Your task to perform on an android device: check battery use Image 0: 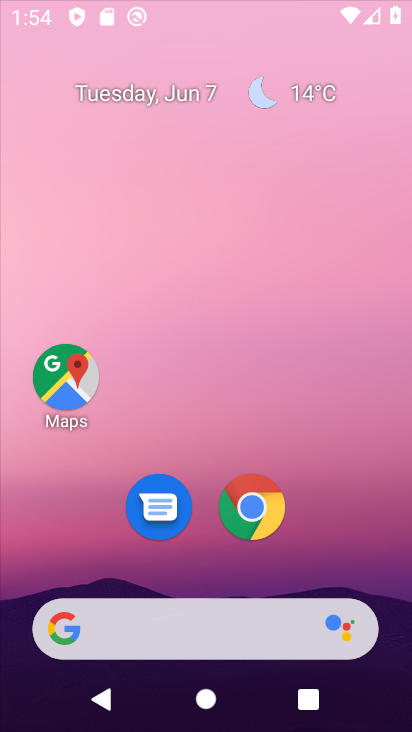
Step 0: click (256, 504)
Your task to perform on an android device: check battery use Image 1: 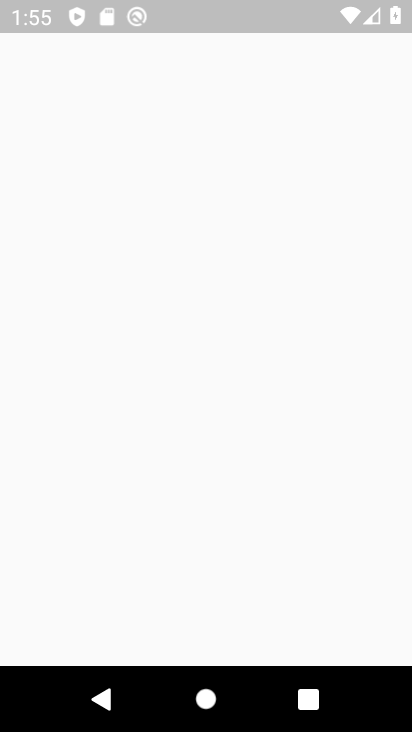
Step 1: press home button
Your task to perform on an android device: check battery use Image 2: 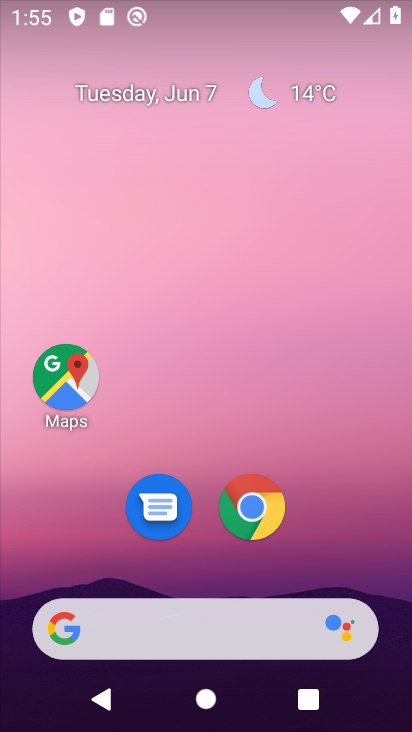
Step 2: drag from (325, 511) to (300, 118)
Your task to perform on an android device: check battery use Image 3: 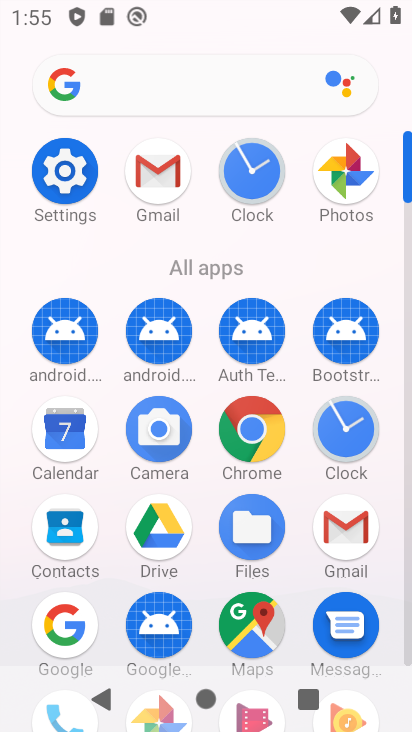
Step 3: click (75, 186)
Your task to perform on an android device: check battery use Image 4: 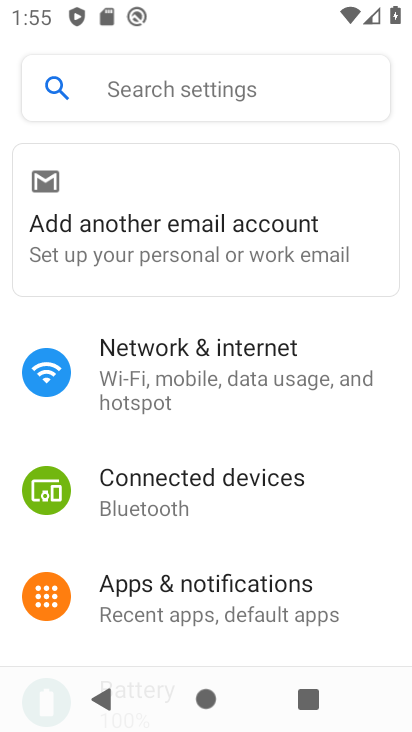
Step 4: drag from (298, 533) to (316, 48)
Your task to perform on an android device: check battery use Image 5: 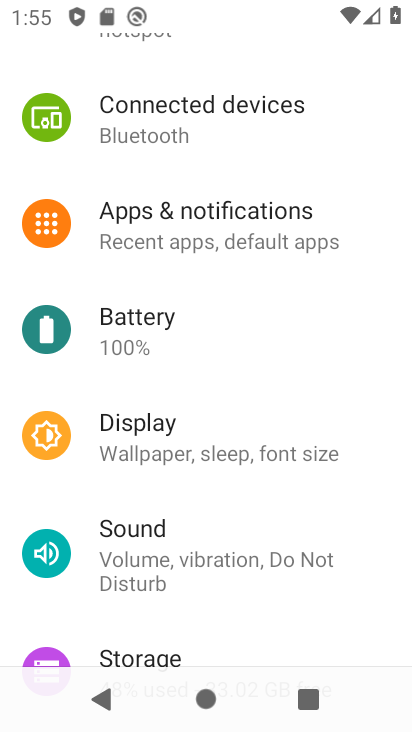
Step 5: drag from (186, 505) to (209, 36)
Your task to perform on an android device: check battery use Image 6: 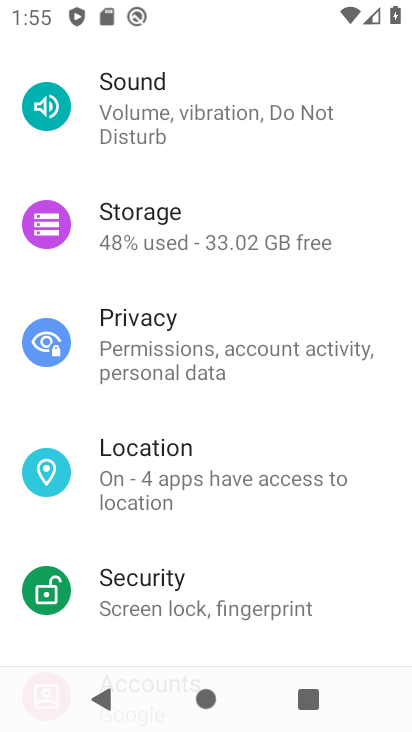
Step 6: drag from (209, 36) to (159, 489)
Your task to perform on an android device: check battery use Image 7: 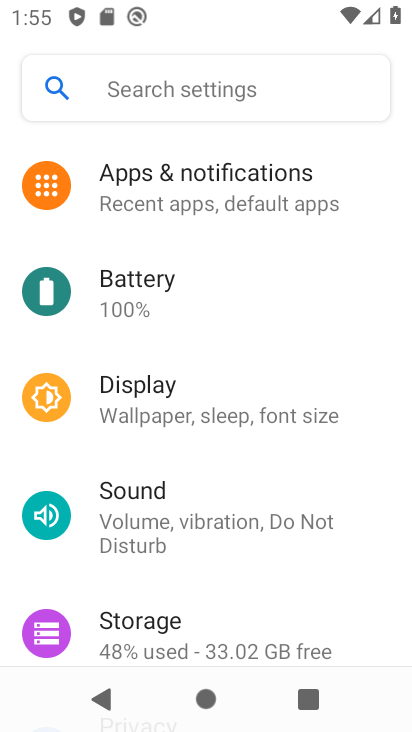
Step 7: click (154, 303)
Your task to perform on an android device: check battery use Image 8: 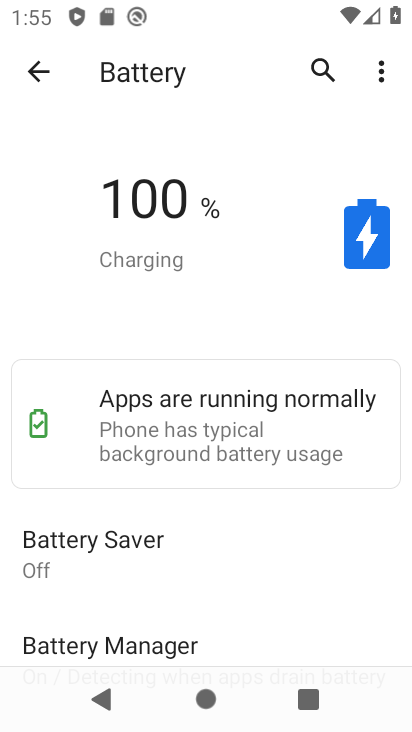
Step 8: click (376, 52)
Your task to perform on an android device: check battery use Image 9: 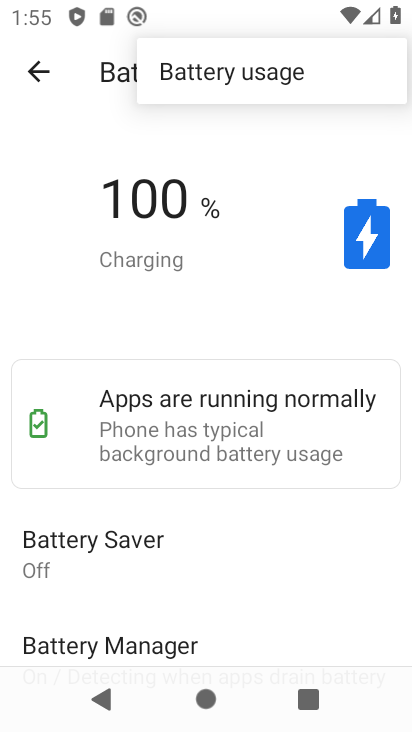
Step 9: click (314, 78)
Your task to perform on an android device: check battery use Image 10: 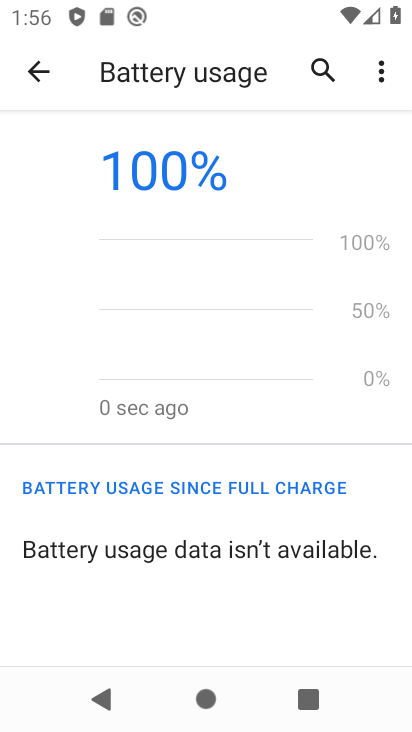
Step 10: task complete